Your task to perform on an android device: turn on location history Image 0: 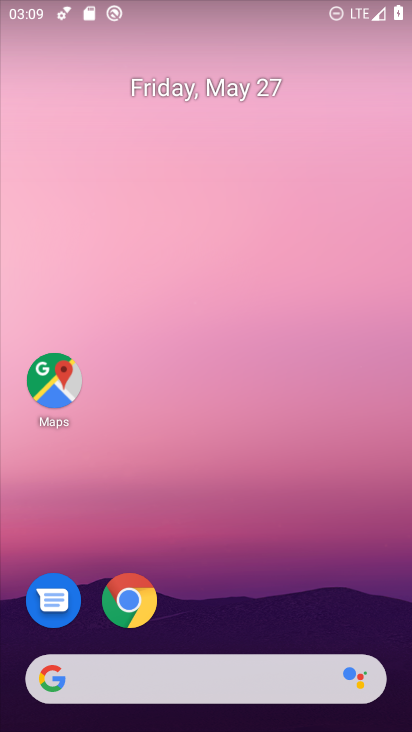
Step 0: drag from (218, 695) to (220, 48)
Your task to perform on an android device: turn on location history Image 1: 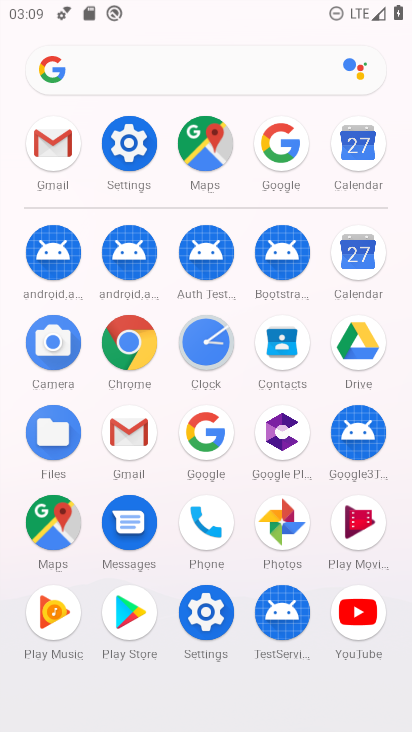
Step 1: click (129, 152)
Your task to perform on an android device: turn on location history Image 2: 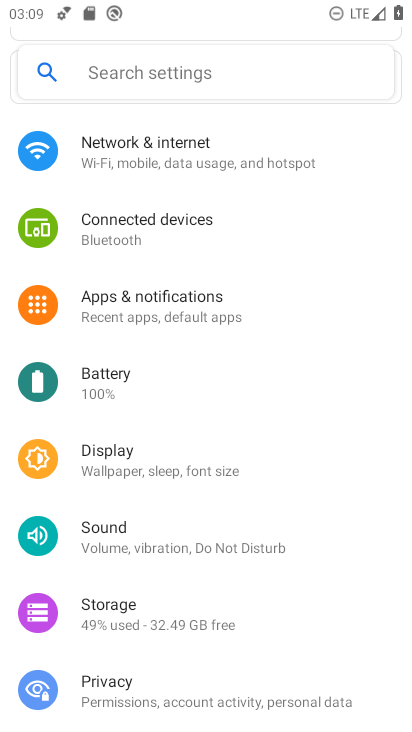
Step 2: drag from (180, 694) to (168, 292)
Your task to perform on an android device: turn on location history Image 3: 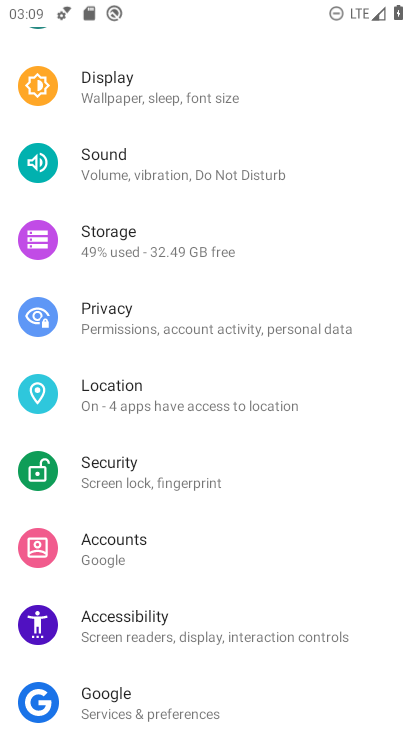
Step 3: click (136, 405)
Your task to perform on an android device: turn on location history Image 4: 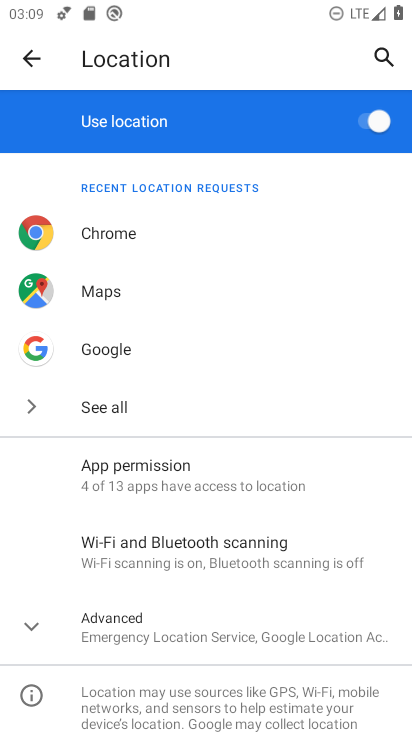
Step 4: click (105, 626)
Your task to perform on an android device: turn on location history Image 5: 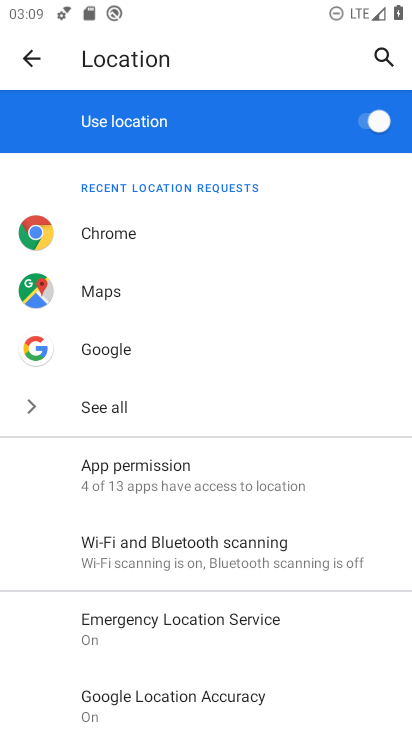
Step 5: drag from (221, 670) to (219, 361)
Your task to perform on an android device: turn on location history Image 6: 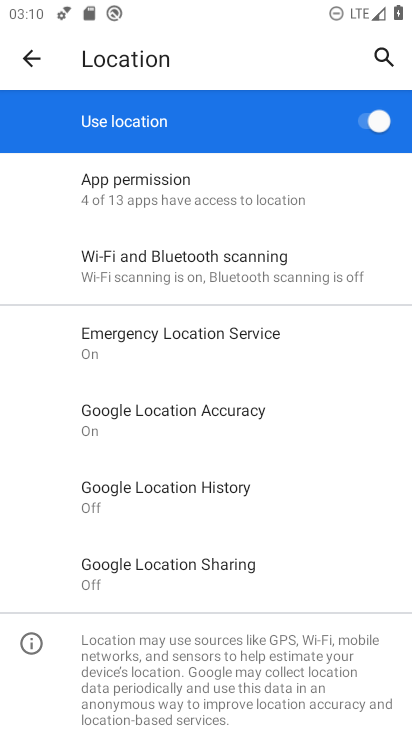
Step 6: click (176, 484)
Your task to perform on an android device: turn on location history Image 7: 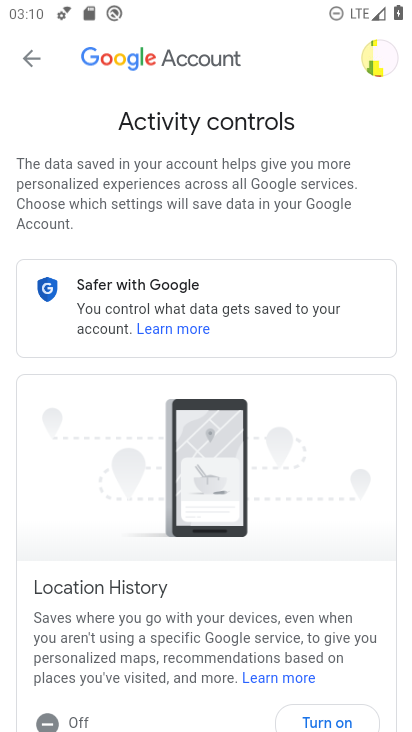
Step 7: drag from (184, 666) to (185, 253)
Your task to perform on an android device: turn on location history Image 8: 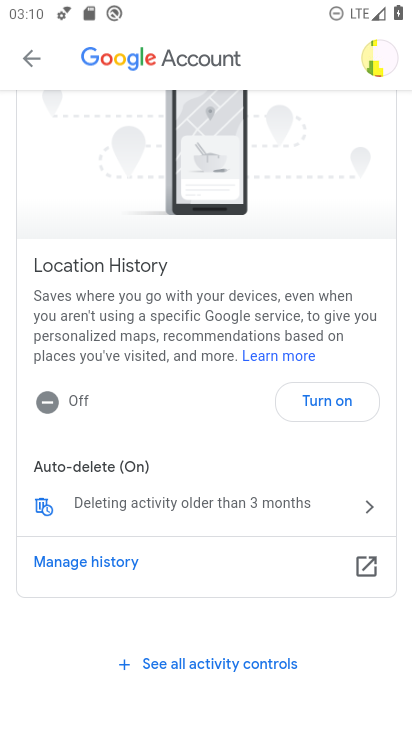
Step 8: click (329, 400)
Your task to perform on an android device: turn on location history Image 9: 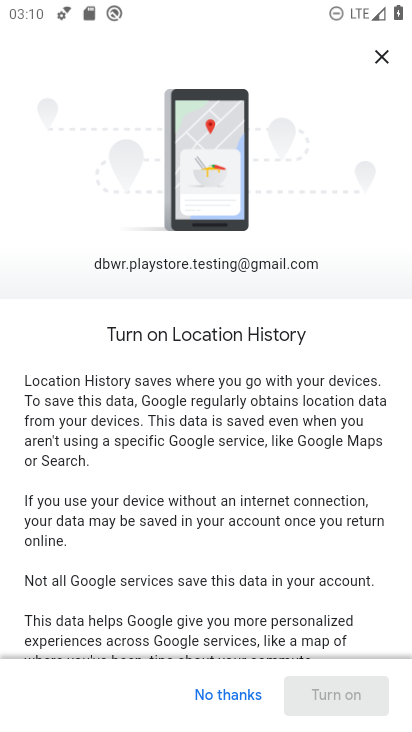
Step 9: drag from (231, 625) to (216, 245)
Your task to perform on an android device: turn on location history Image 10: 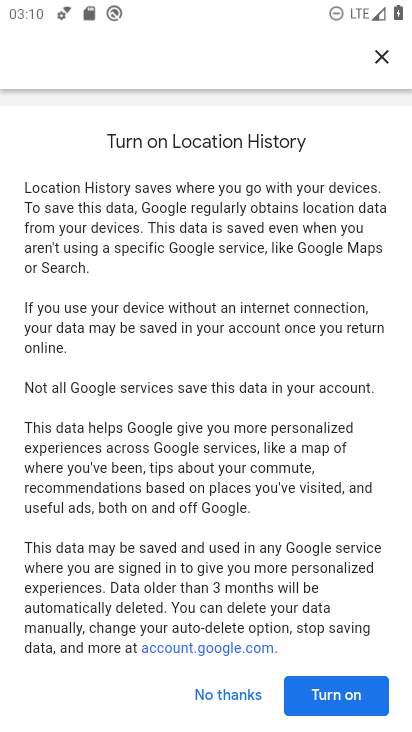
Step 10: click (346, 691)
Your task to perform on an android device: turn on location history Image 11: 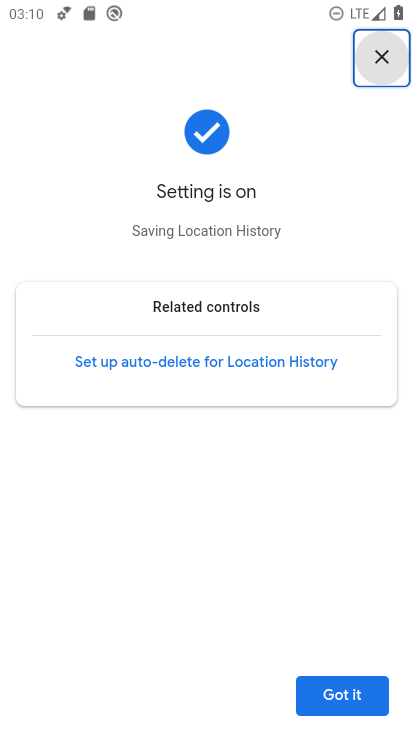
Step 11: task complete